Your task to perform on an android device: Go to Google maps Image 0: 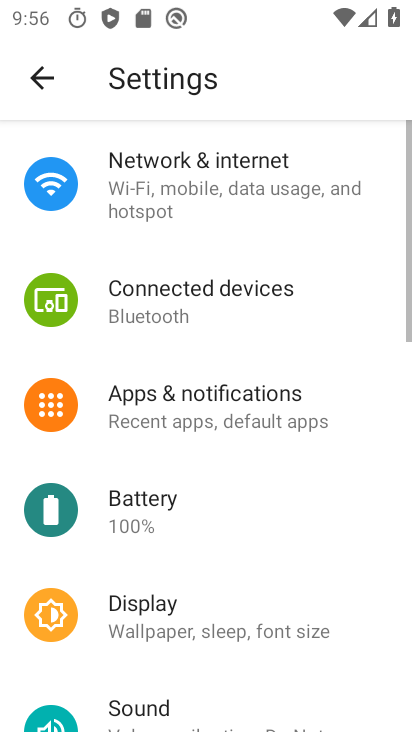
Step 0: press home button
Your task to perform on an android device: Go to Google maps Image 1: 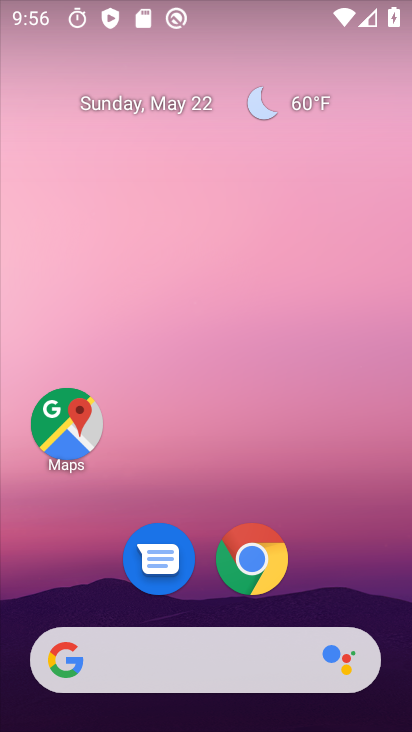
Step 1: click (93, 400)
Your task to perform on an android device: Go to Google maps Image 2: 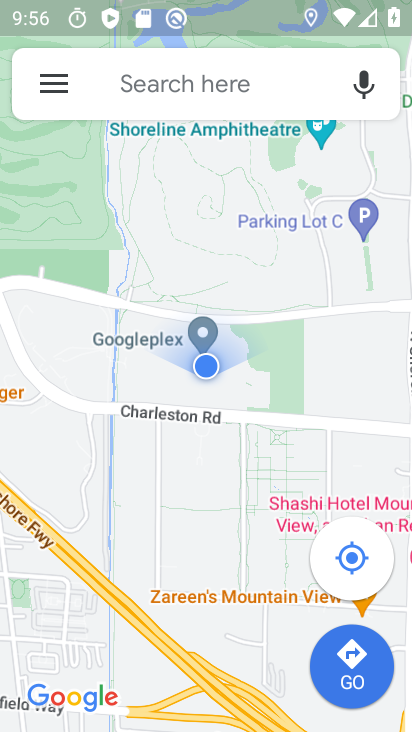
Step 2: task complete